Your task to perform on an android device: change notifications settings Image 0: 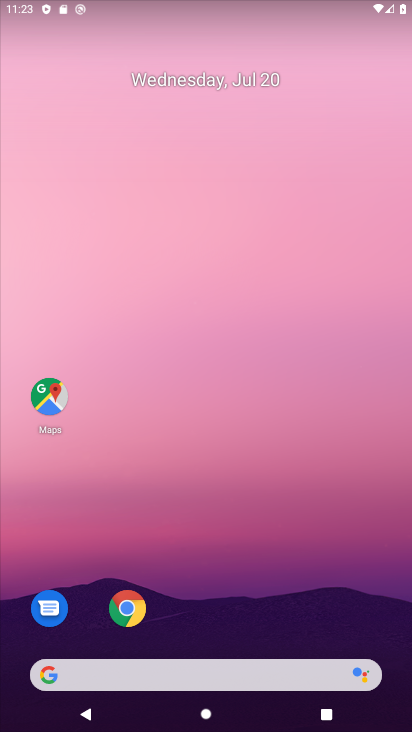
Step 0: drag from (386, 632) to (255, 60)
Your task to perform on an android device: change notifications settings Image 1: 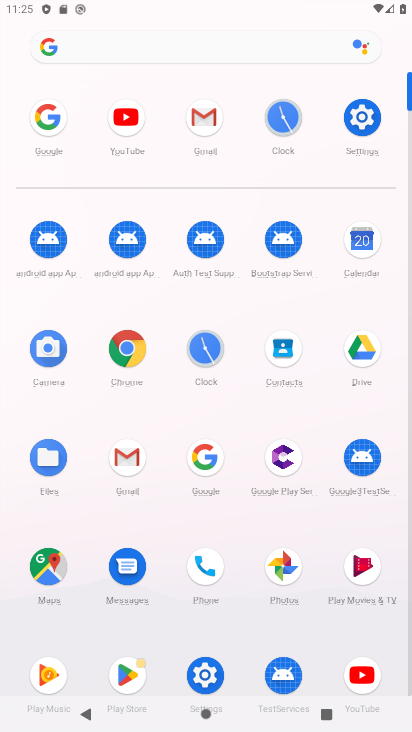
Step 1: click (209, 678)
Your task to perform on an android device: change notifications settings Image 2: 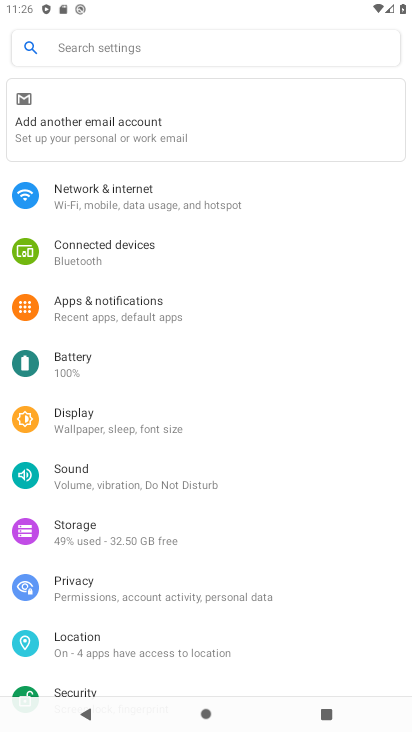
Step 2: click (110, 297)
Your task to perform on an android device: change notifications settings Image 3: 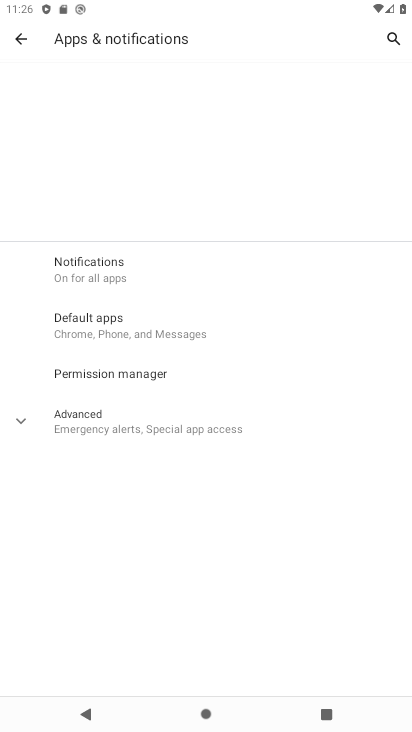
Step 3: task complete